Your task to perform on an android device: Go to Amazon Image 0: 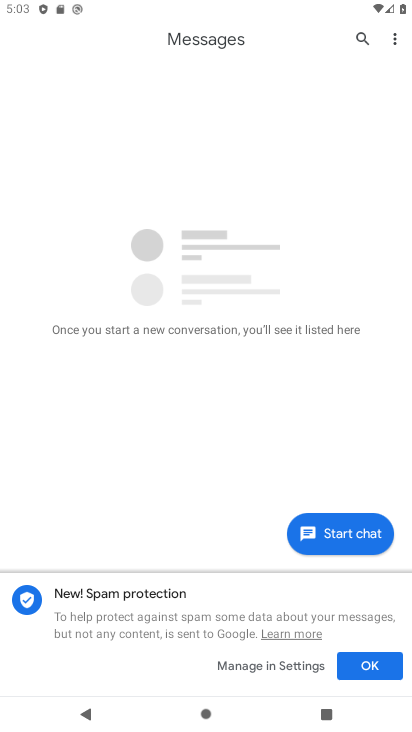
Step 0: press home button
Your task to perform on an android device: Go to Amazon Image 1: 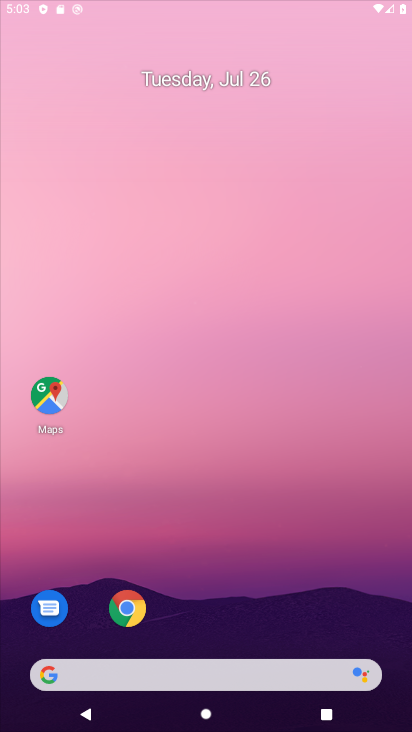
Step 1: drag from (356, 679) to (129, 16)
Your task to perform on an android device: Go to Amazon Image 2: 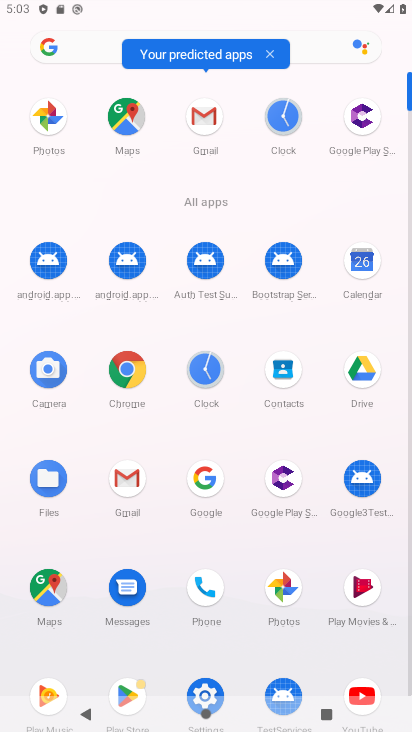
Step 2: click (211, 474)
Your task to perform on an android device: Go to Amazon Image 3: 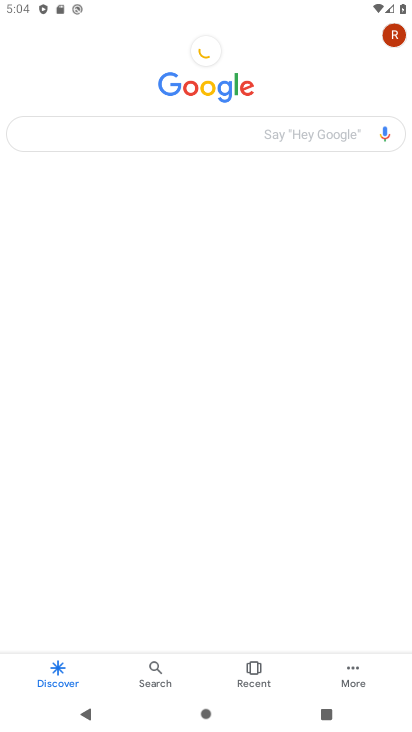
Step 3: click (172, 141)
Your task to perform on an android device: Go to Amazon Image 4: 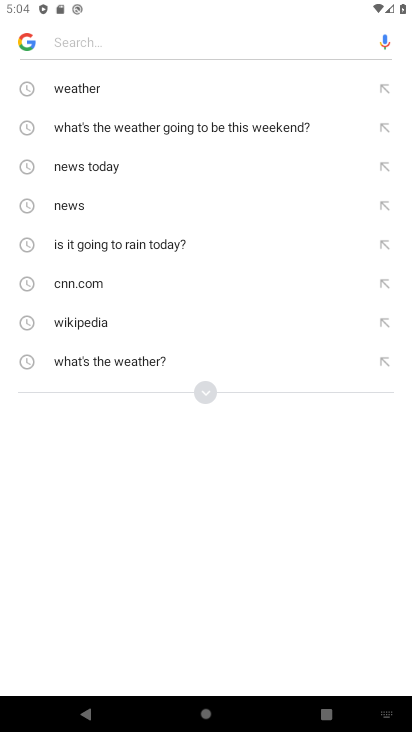
Step 4: type "Amazon"
Your task to perform on an android device: Go to Amazon Image 5: 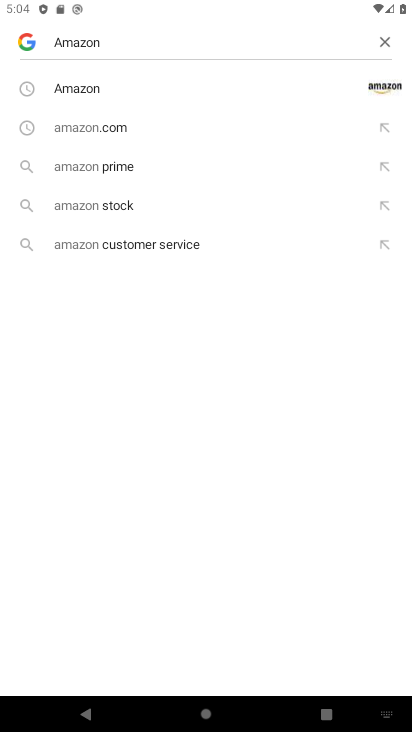
Step 5: click (138, 84)
Your task to perform on an android device: Go to Amazon Image 6: 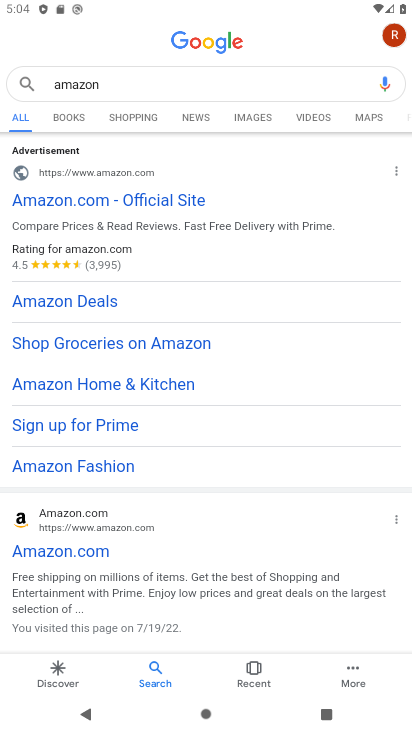
Step 6: task complete